Your task to perform on an android device: change notification settings in the gmail app Image 0: 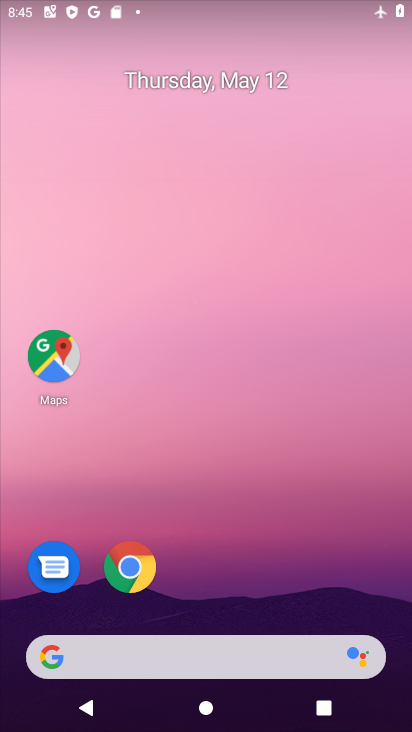
Step 0: drag from (105, 544) to (141, 313)
Your task to perform on an android device: change notification settings in the gmail app Image 1: 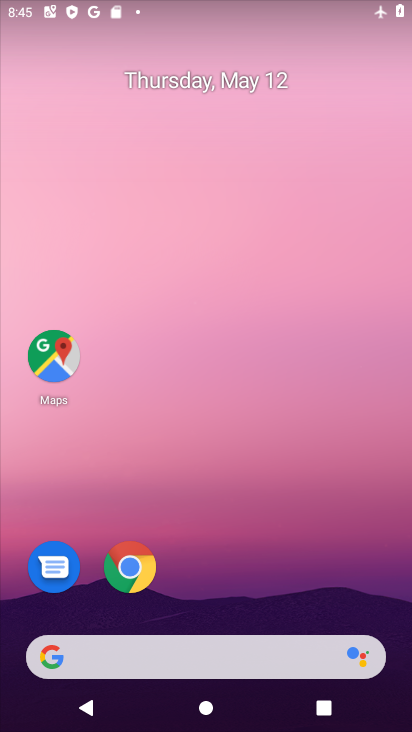
Step 1: drag from (175, 616) to (211, 228)
Your task to perform on an android device: change notification settings in the gmail app Image 2: 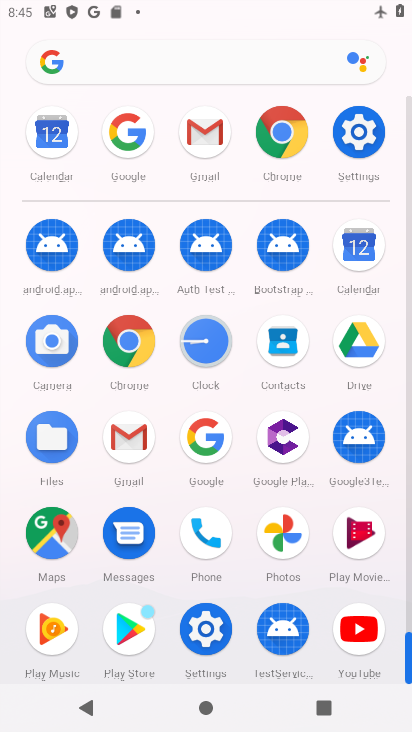
Step 2: click (212, 170)
Your task to perform on an android device: change notification settings in the gmail app Image 3: 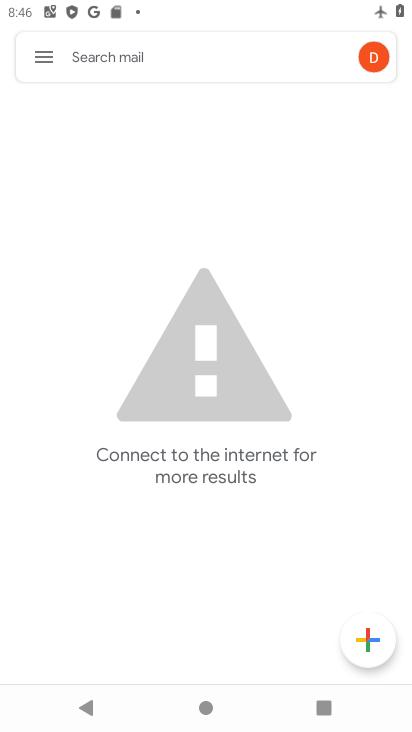
Step 3: click (53, 67)
Your task to perform on an android device: change notification settings in the gmail app Image 4: 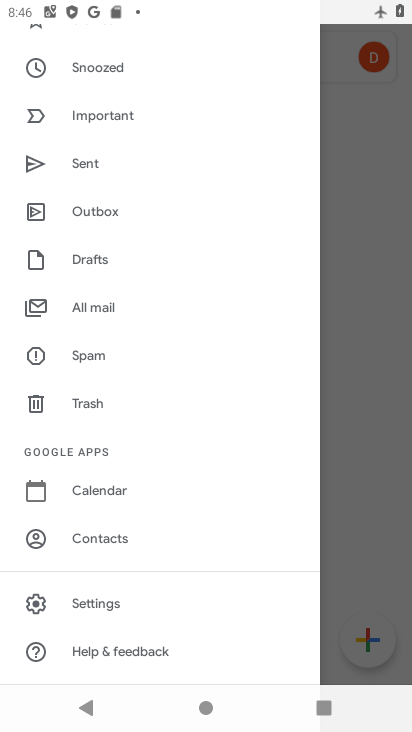
Step 4: click (80, 591)
Your task to perform on an android device: change notification settings in the gmail app Image 5: 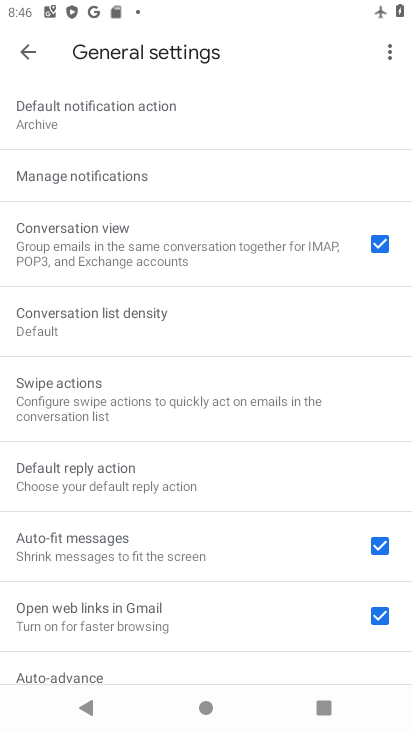
Step 5: click (191, 165)
Your task to perform on an android device: change notification settings in the gmail app Image 6: 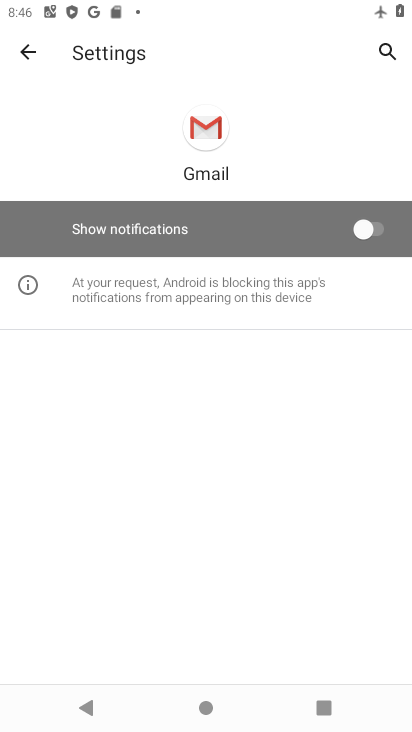
Step 6: task complete